Your task to perform on an android device: snooze an email in the gmail app Image 0: 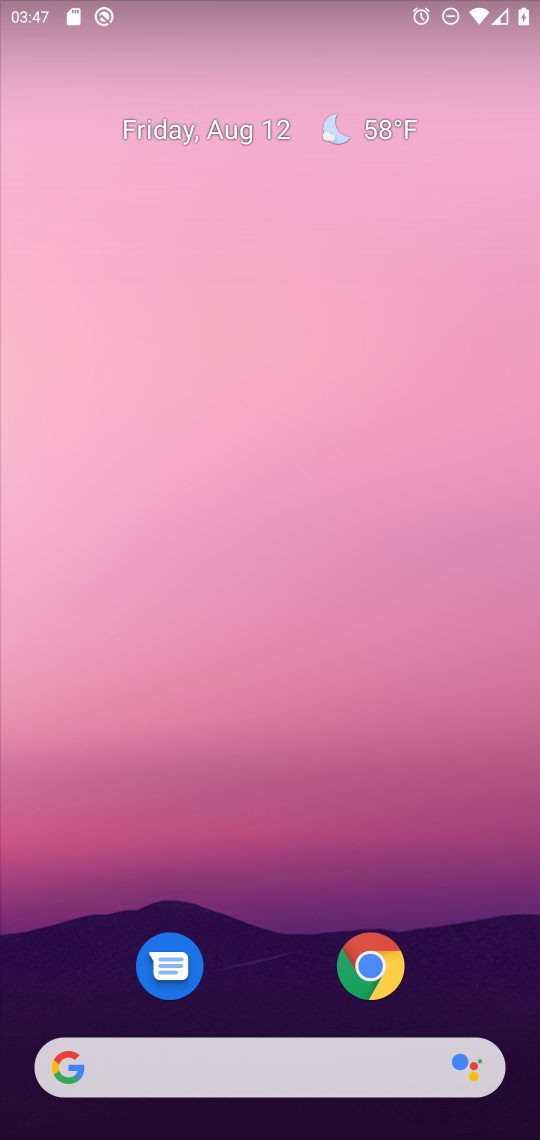
Step 0: drag from (455, 958) to (490, 181)
Your task to perform on an android device: snooze an email in the gmail app Image 1: 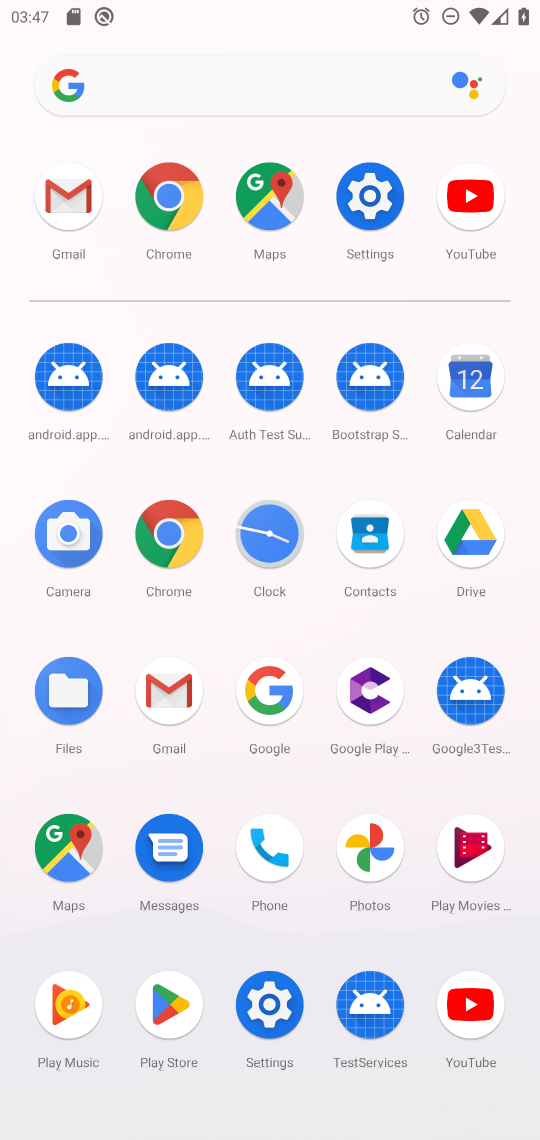
Step 1: click (175, 689)
Your task to perform on an android device: snooze an email in the gmail app Image 2: 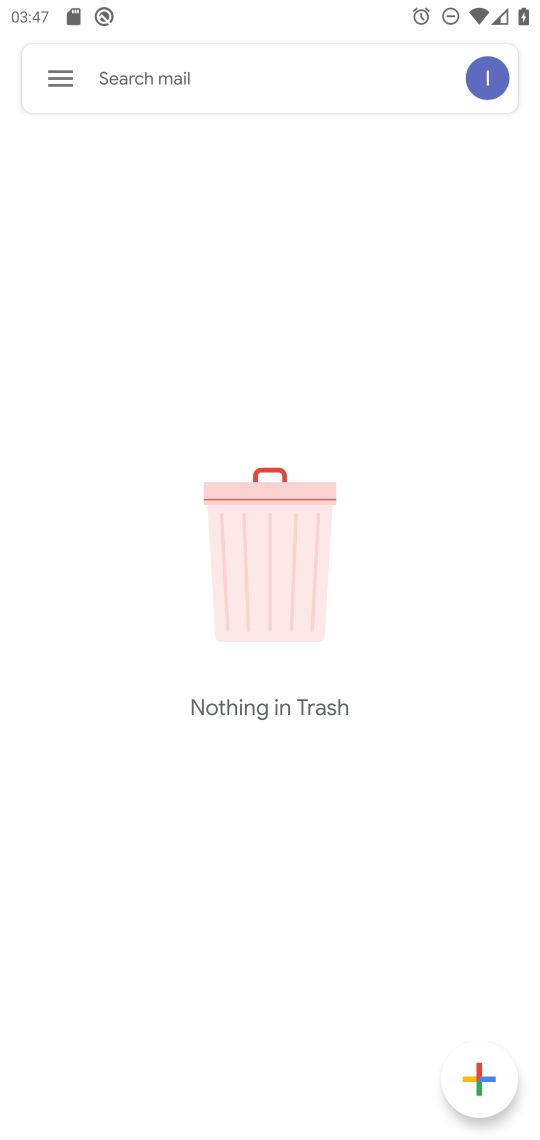
Step 2: click (72, 74)
Your task to perform on an android device: snooze an email in the gmail app Image 3: 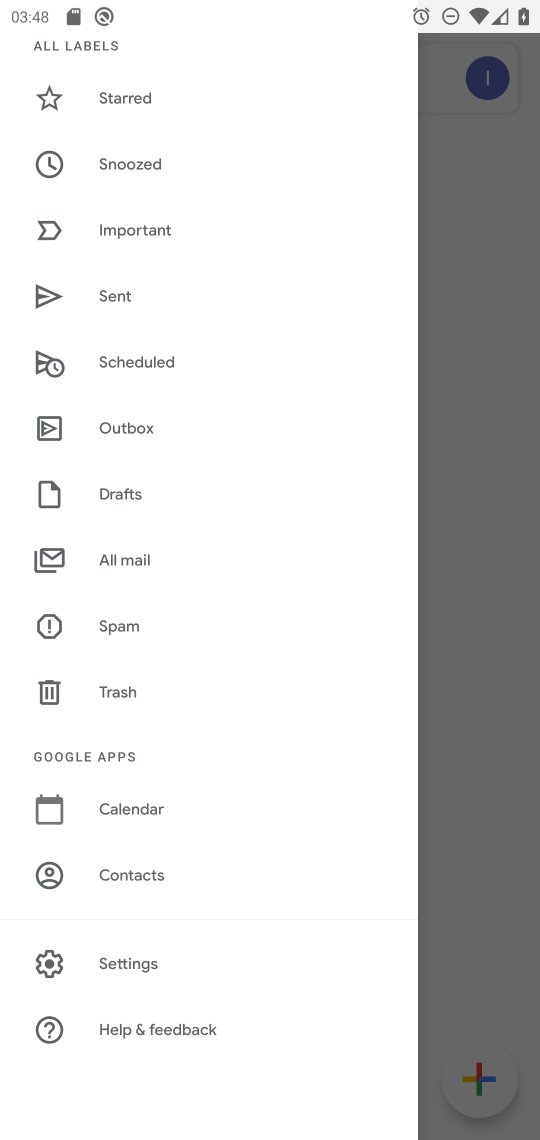
Step 3: click (110, 564)
Your task to perform on an android device: snooze an email in the gmail app Image 4: 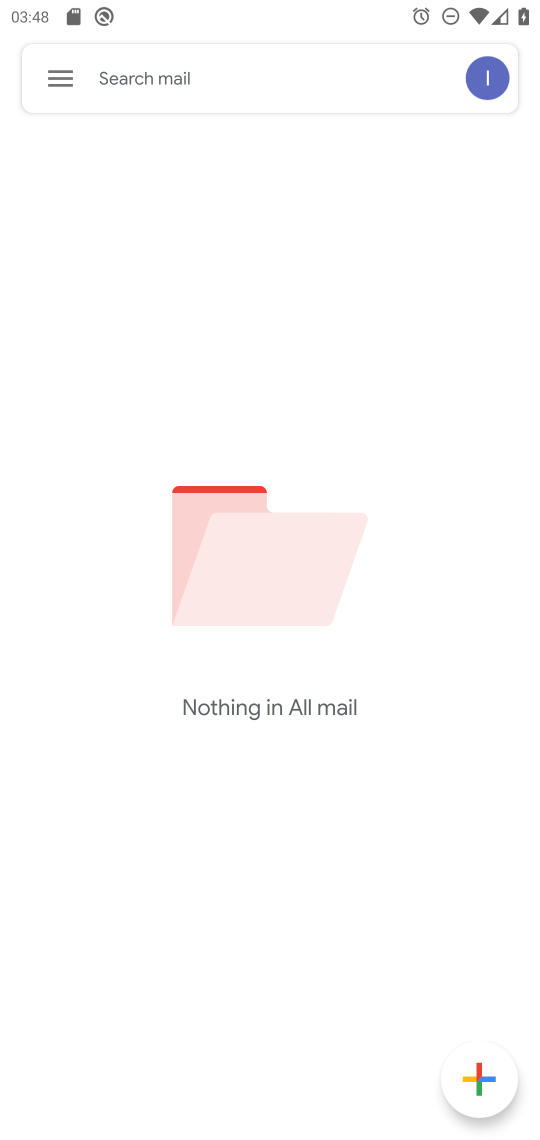
Step 4: task complete